Your task to perform on an android device: Go to display settings Image 0: 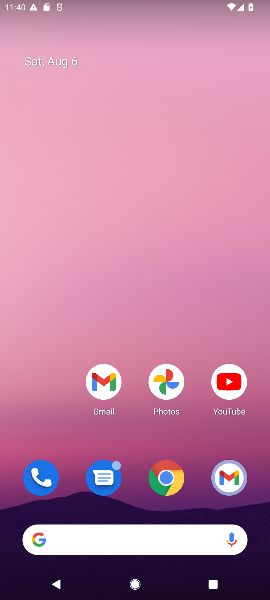
Step 0: drag from (101, 528) to (159, 75)
Your task to perform on an android device: Go to display settings Image 1: 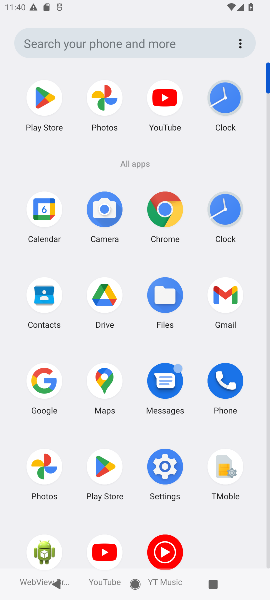
Step 1: click (169, 468)
Your task to perform on an android device: Go to display settings Image 2: 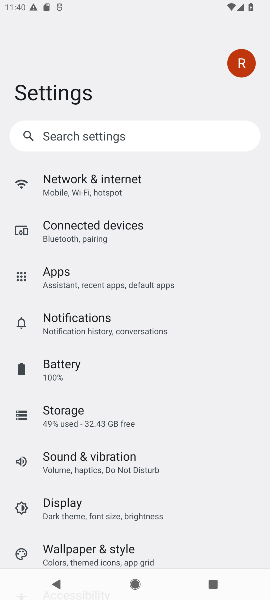
Step 2: task complete